Your task to perform on an android device: Clear all items from cart on newegg.com. Add "alienware aurora" to the cart on newegg.com, then select checkout. Image 0: 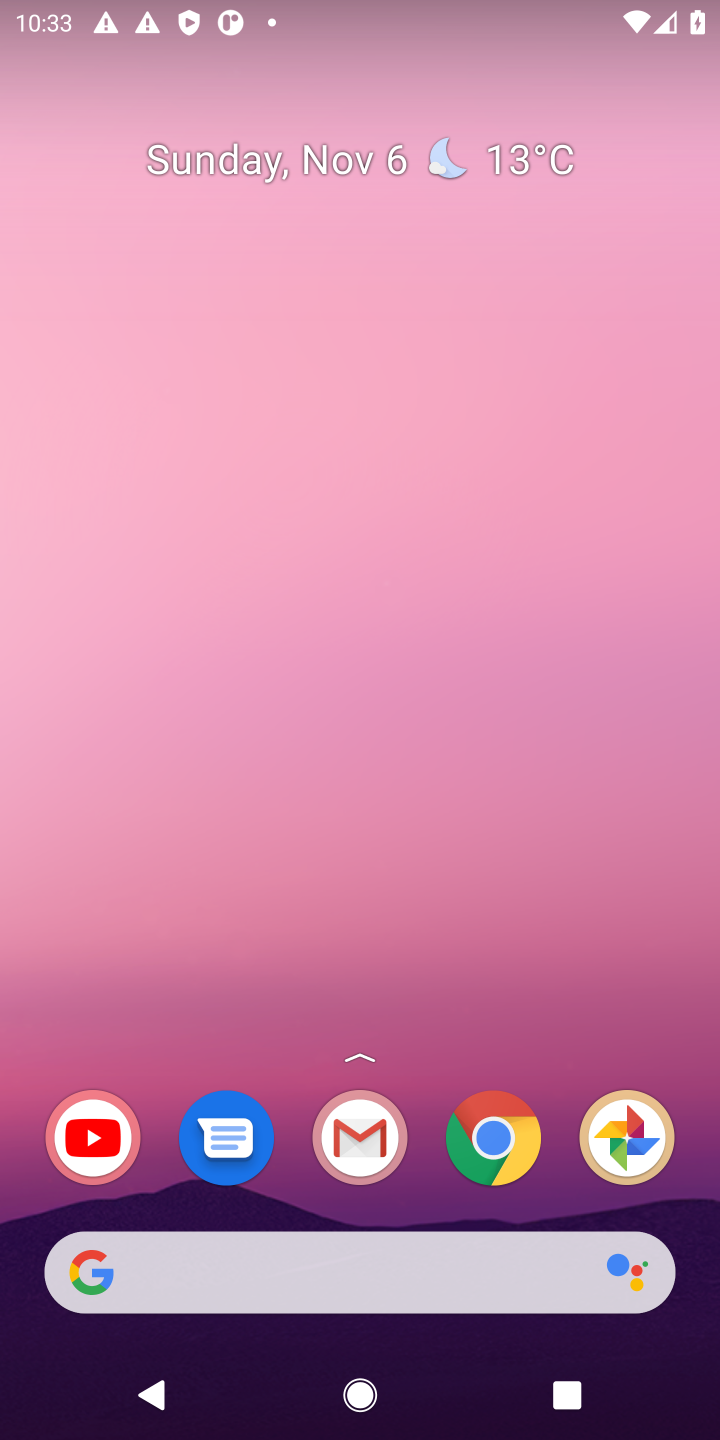
Step 0: click (482, 1135)
Your task to perform on an android device: Clear all items from cart on newegg.com. Add "alienware aurora" to the cart on newegg.com, then select checkout. Image 1: 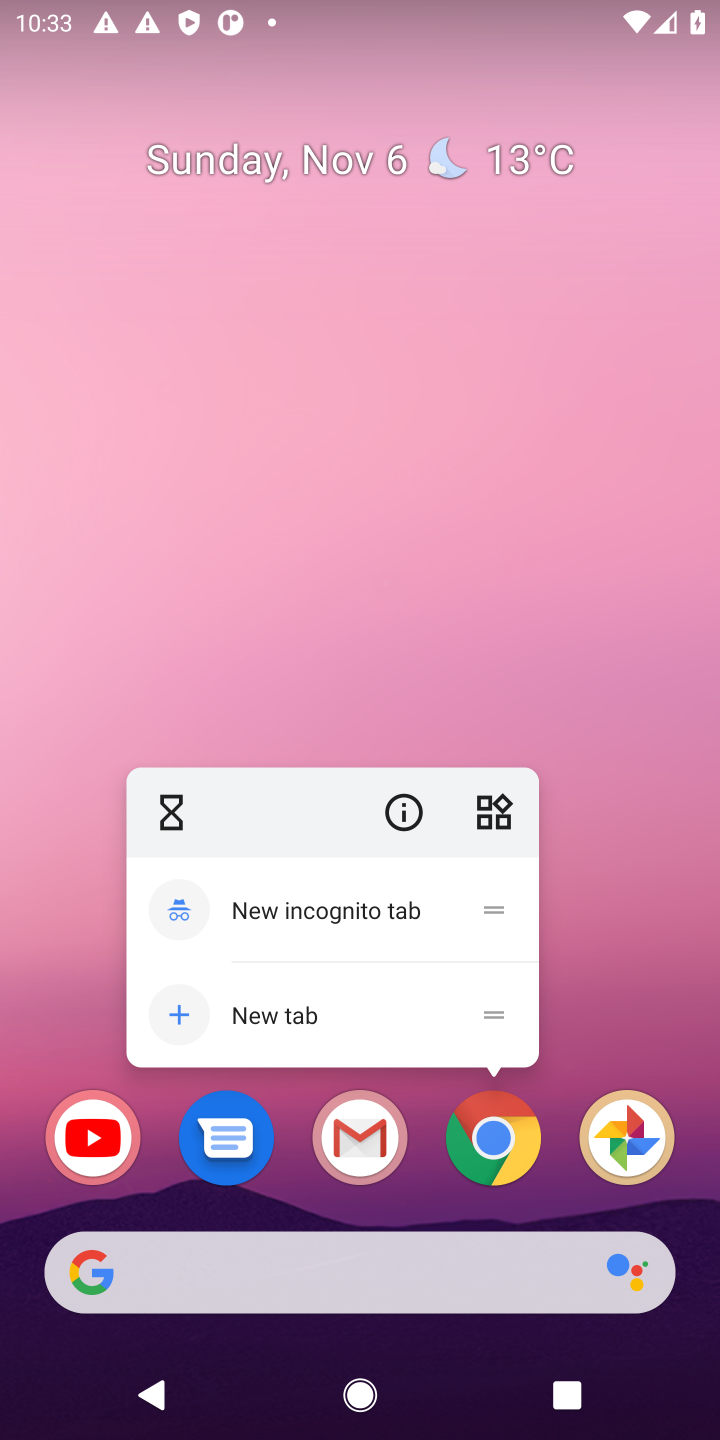
Step 1: click (489, 1143)
Your task to perform on an android device: Clear all items from cart on newegg.com. Add "alienware aurora" to the cart on newegg.com, then select checkout. Image 2: 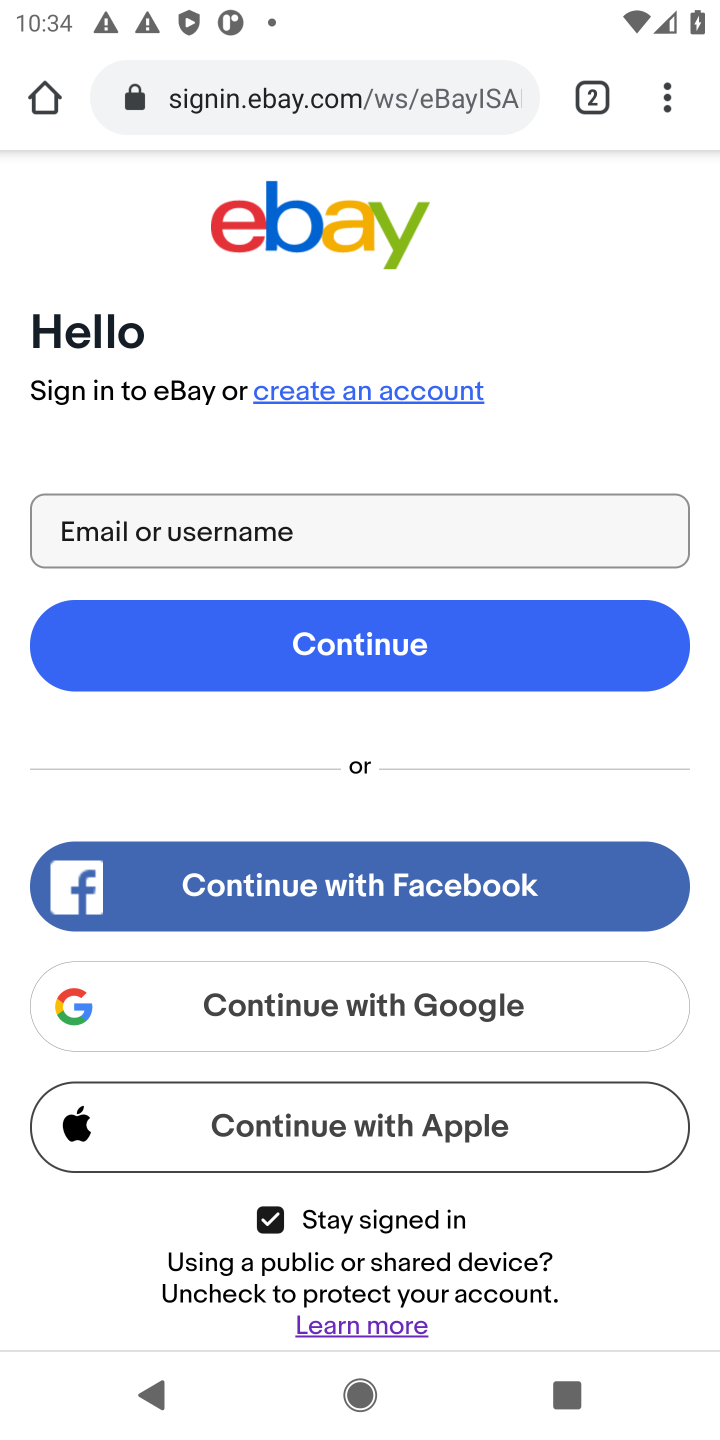
Step 2: click (402, 73)
Your task to perform on an android device: Clear all items from cart on newegg.com. Add "alienware aurora" to the cart on newegg.com, then select checkout. Image 3: 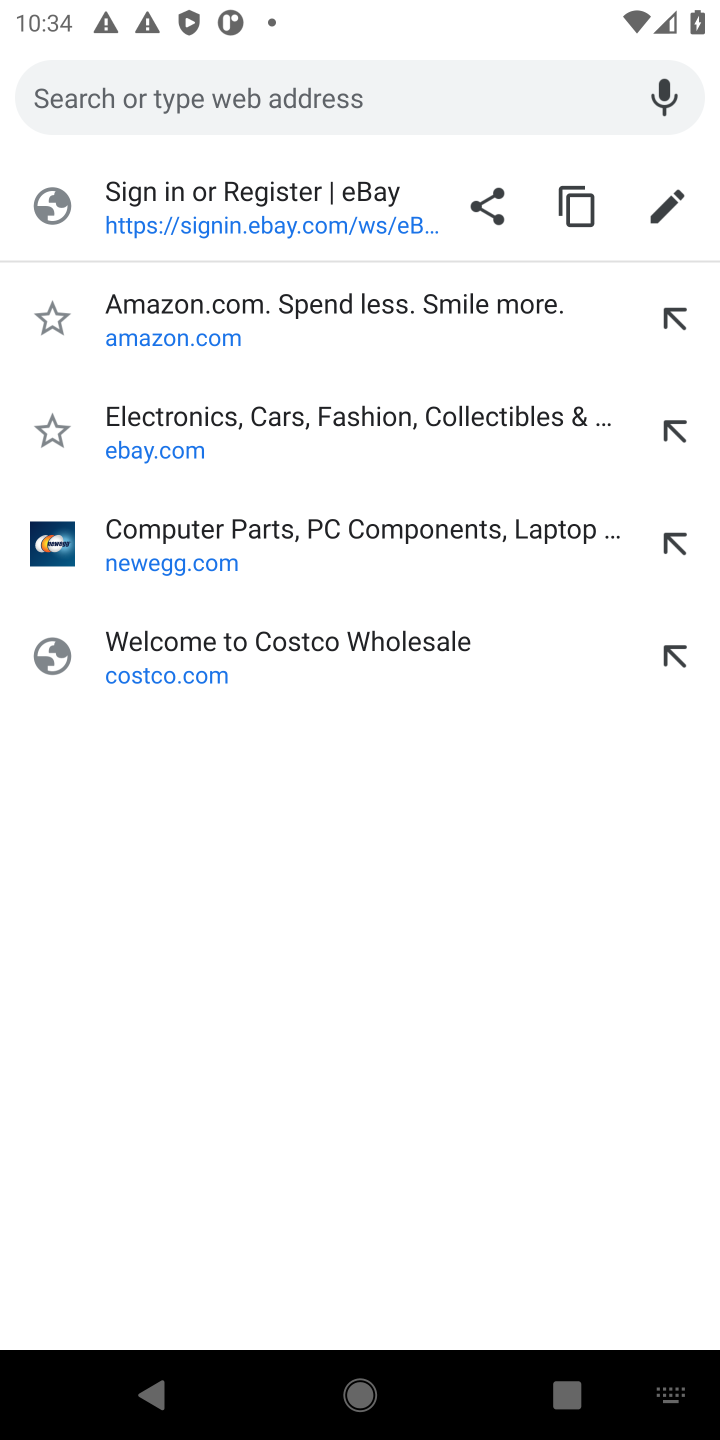
Step 3: type "newegg.com"
Your task to perform on an android device: Clear all items from cart on newegg.com. Add "alienware aurora" to the cart on newegg.com, then select checkout. Image 4: 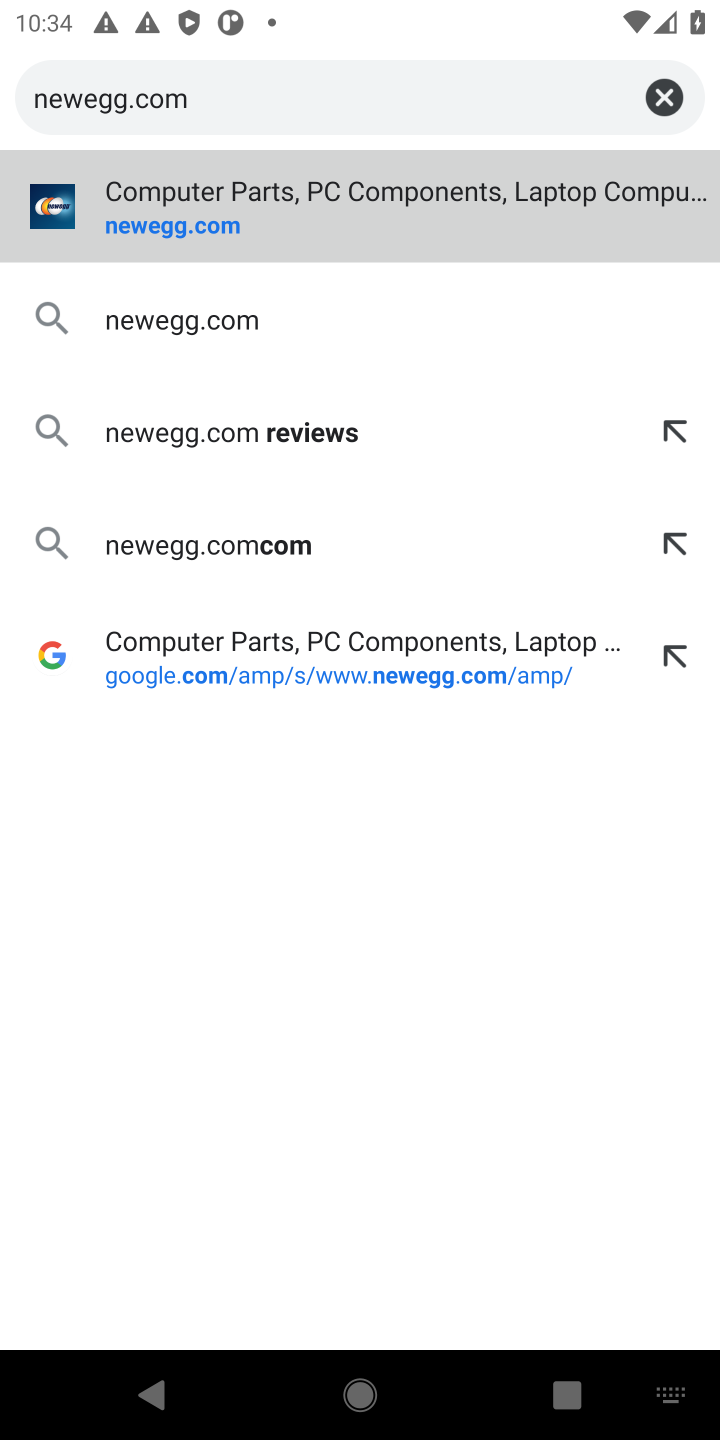
Step 4: click (117, 186)
Your task to perform on an android device: Clear all items from cart on newegg.com. Add "alienware aurora" to the cart on newegg.com, then select checkout. Image 5: 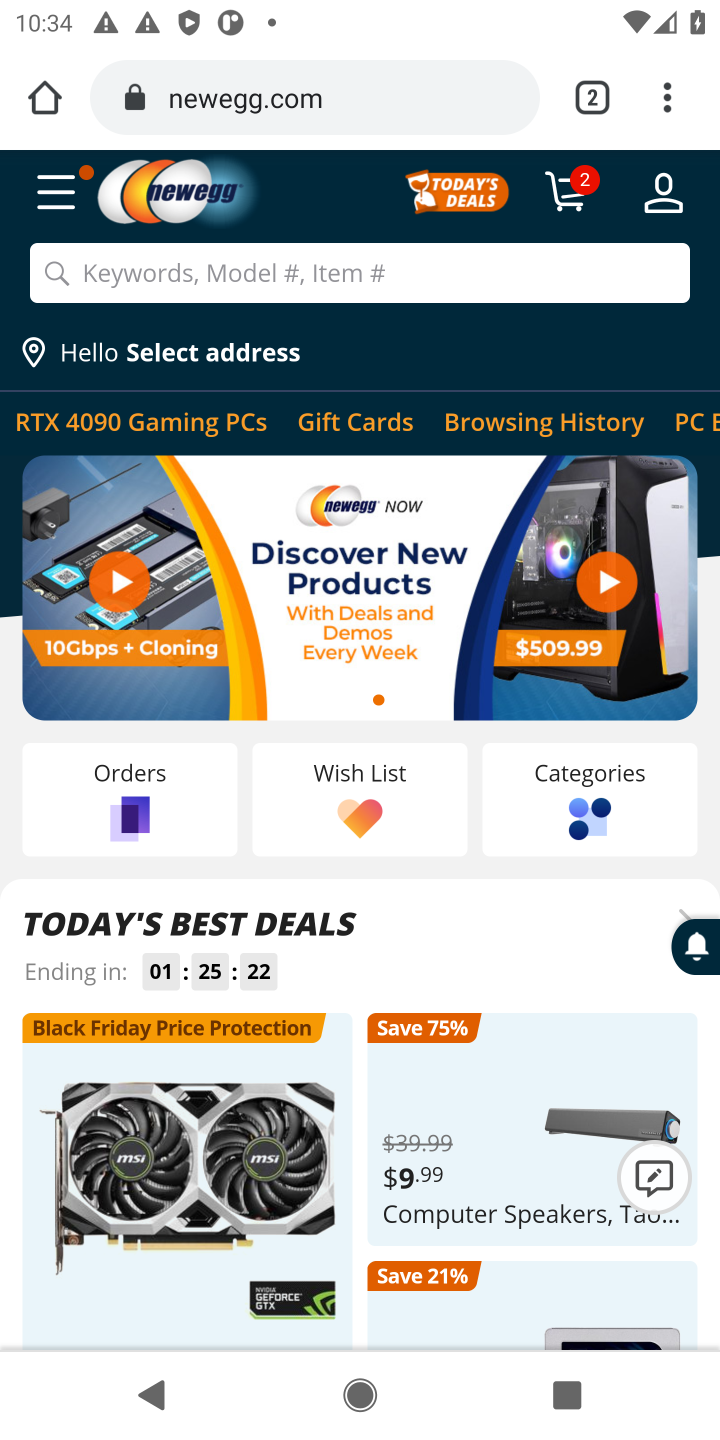
Step 5: click (563, 190)
Your task to perform on an android device: Clear all items from cart on newegg.com. Add "alienware aurora" to the cart on newegg.com, then select checkout. Image 6: 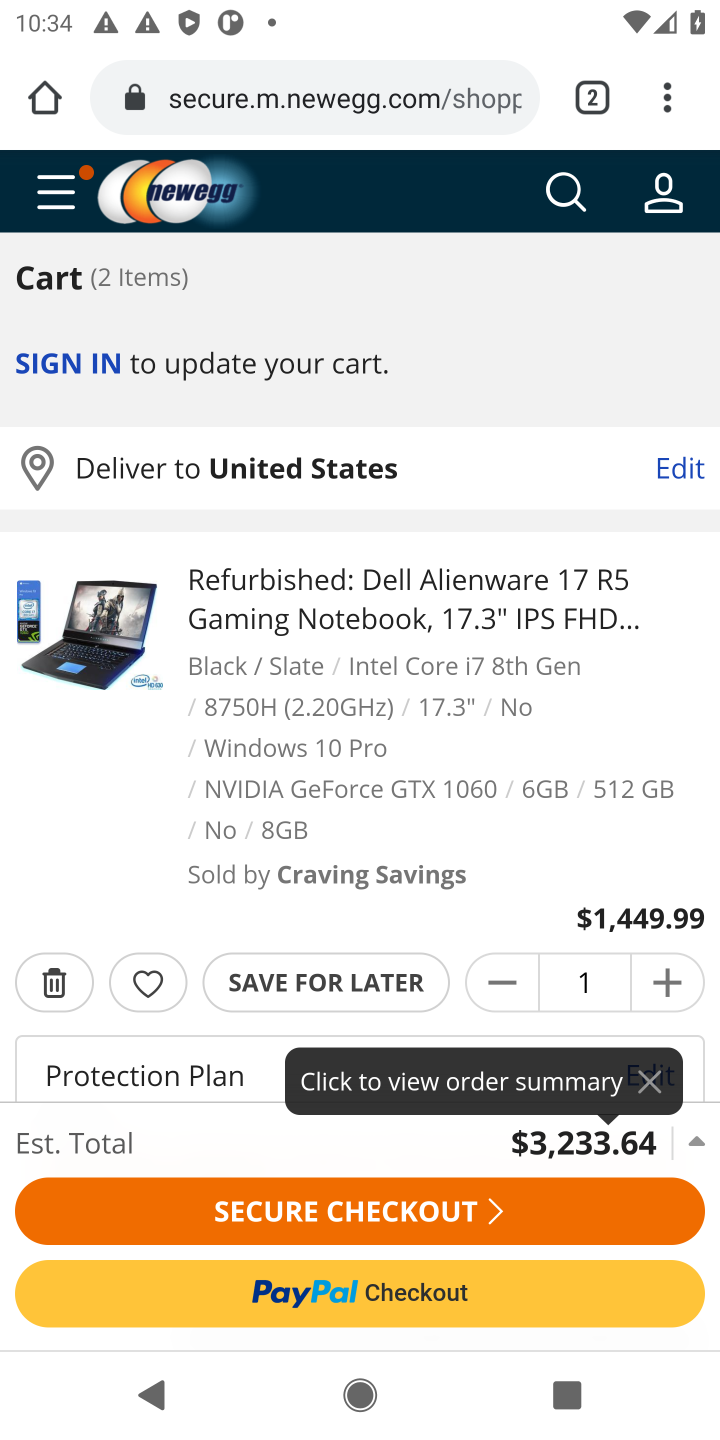
Step 6: click (56, 981)
Your task to perform on an android device: Clear all items from cart on newegg.com. Add "alienware aurora" to the cart on newegg.com, then select checkout. Image 7: 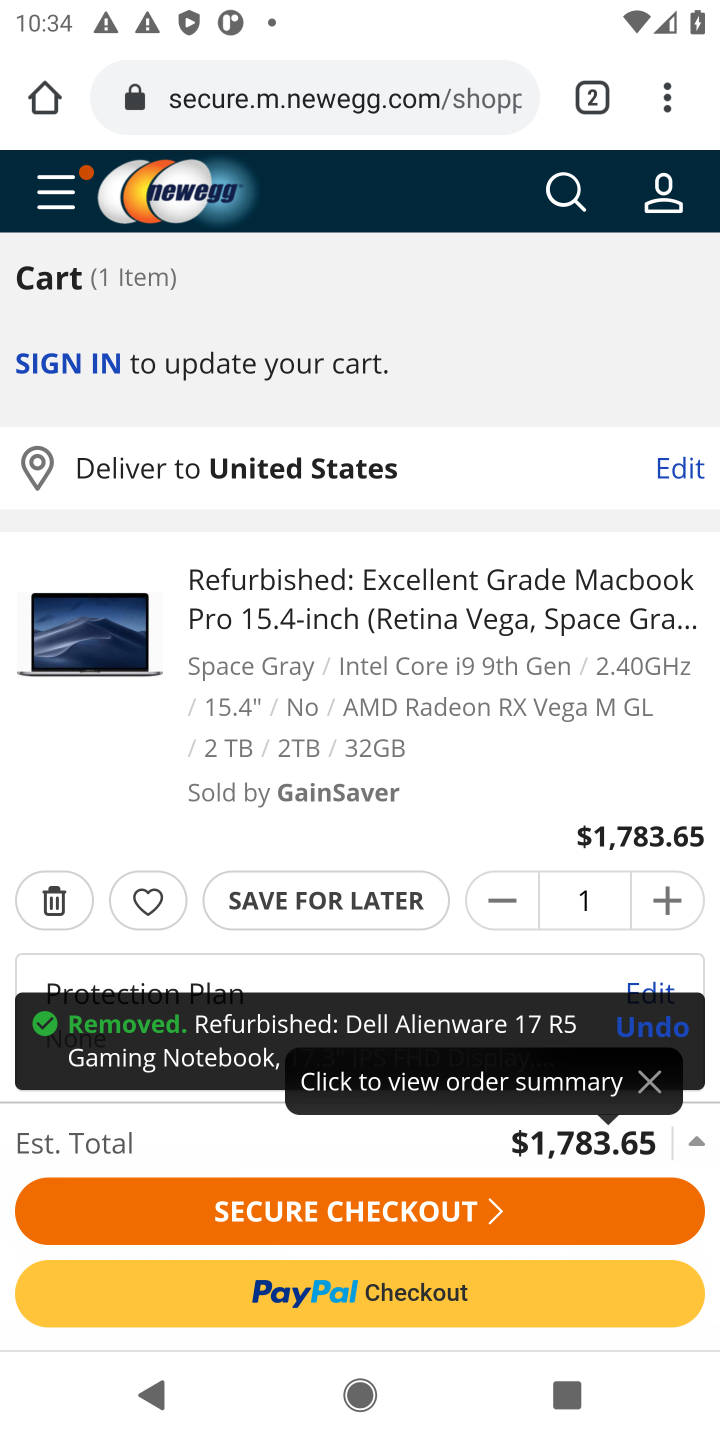
Step 7: click (644, 1079)
Your task to perform on an android device: Clear all items from cart on newegg.com. Add "alienware aurora" to the cart on newegg.com, then select checkout. Image 8: 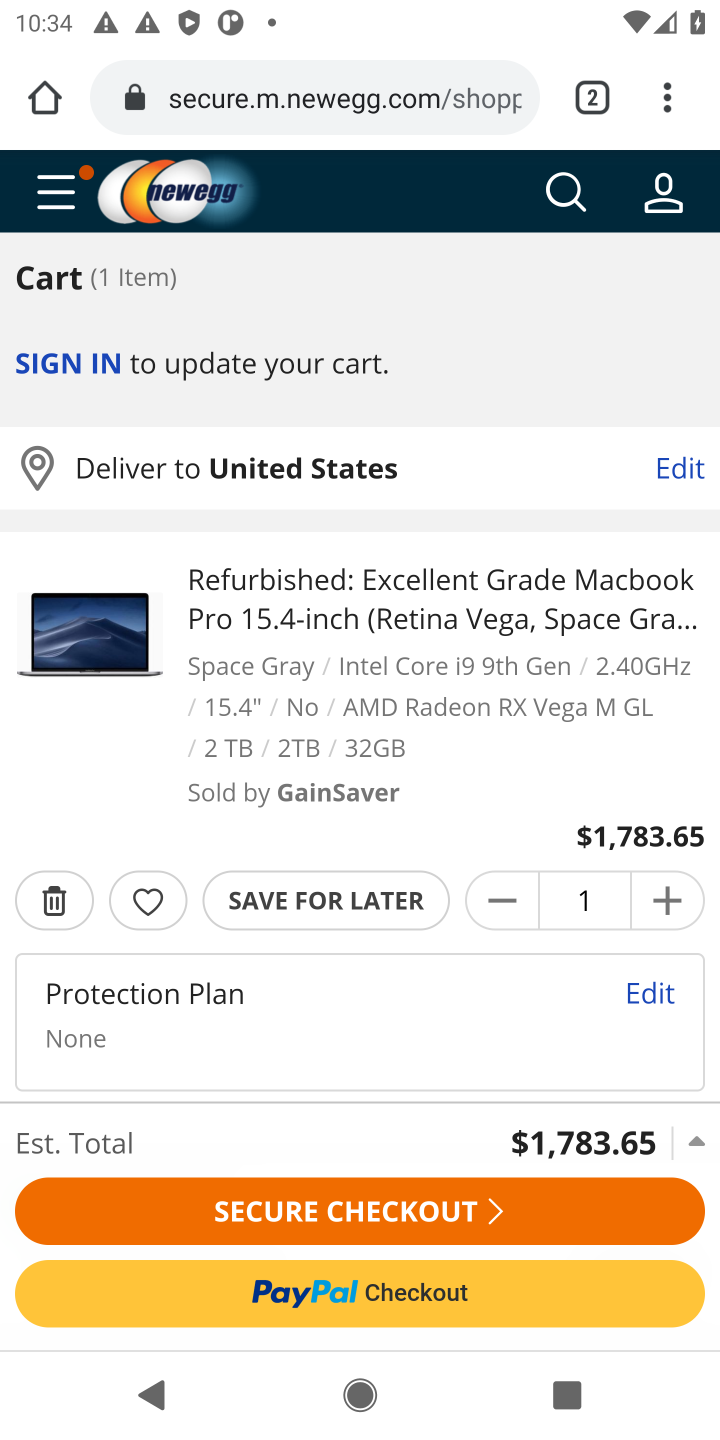
Step 8: click (54, 893)
Your task to perform on an android device: Clear all items from cart on newegg.com. Add "alienware aurora" to the cart on newegg.com, then select checkout. Image 9: 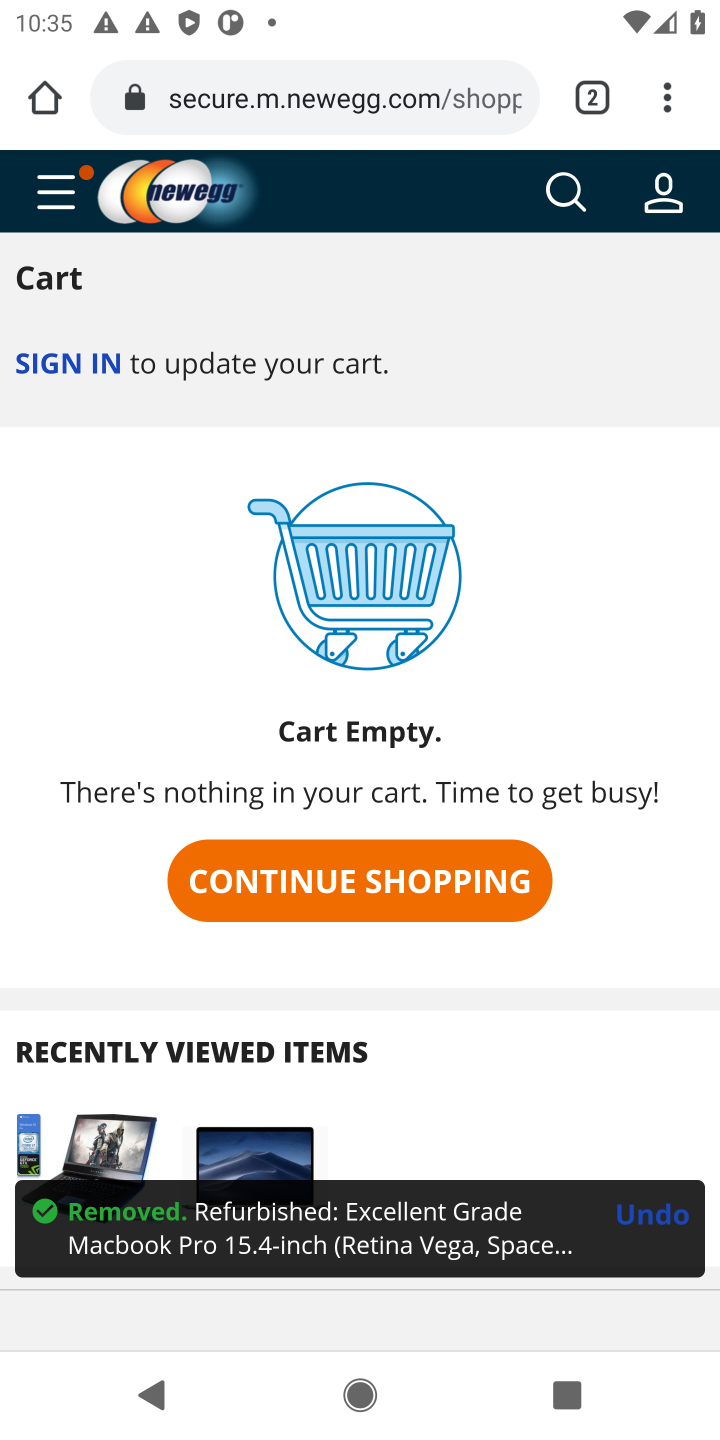
Step 9: click (366, 885)
Your task to perform on an android device: Clear all items from cart on newegg.com. Add "alienware aurora" to the cart on newegg.com, then select checkout. Image 10: 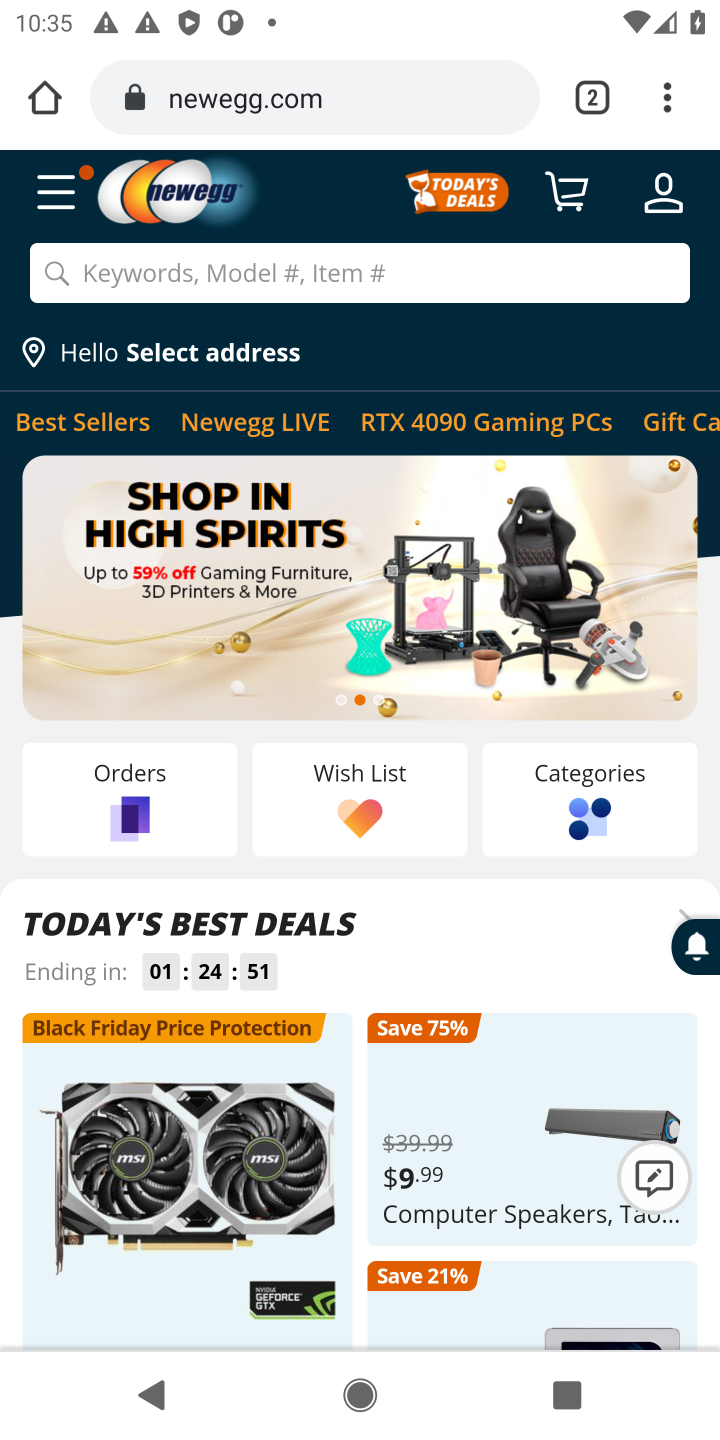
Step 10: click (261, 264)
Your task to perform on an android device: Clear all items from cart on newegg.com. Add "alienware aurora" to the cart on newegg.com, then select checkout. Image 11: 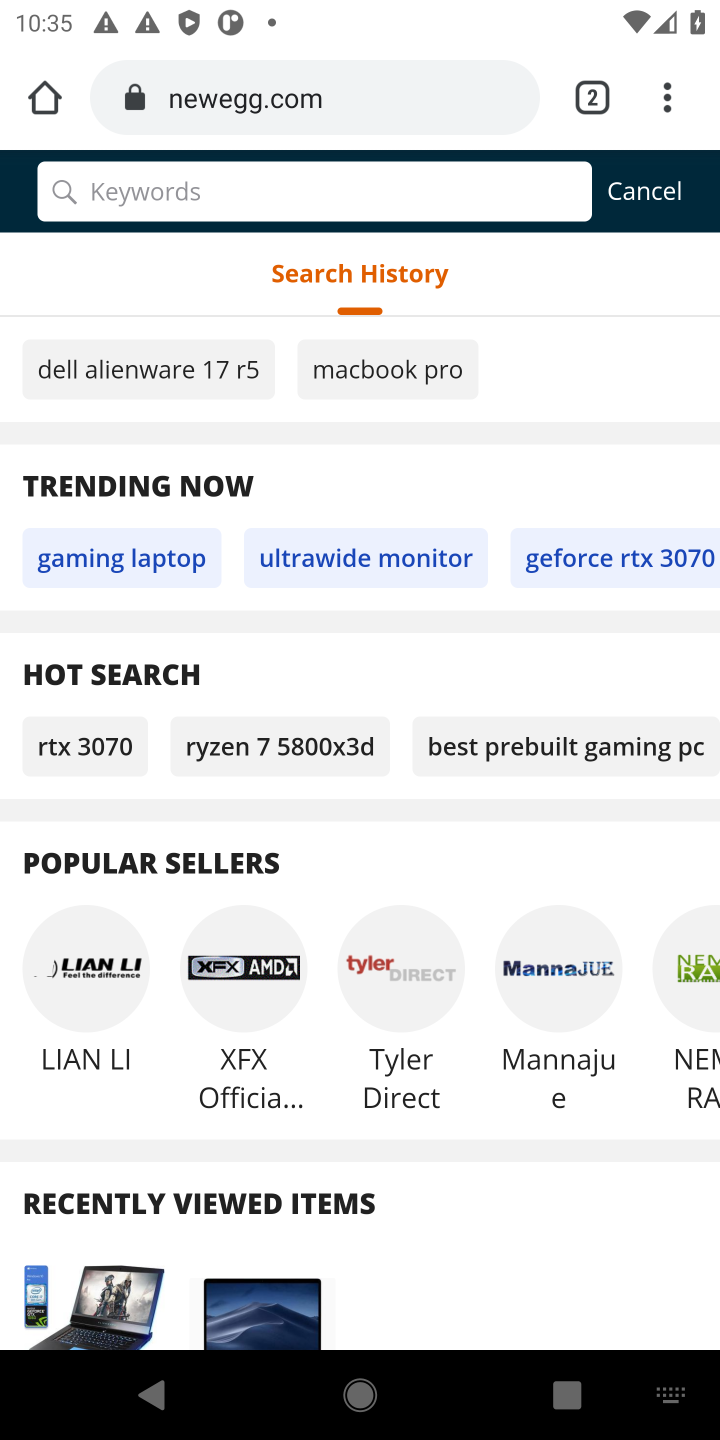
Step 11: type "alienware aurora"
Your task to perform on an android device: Clear all items from cart on newegg.com. Add "alienware aurora" to the cart on newegg.com, then select checkout. Image 12: 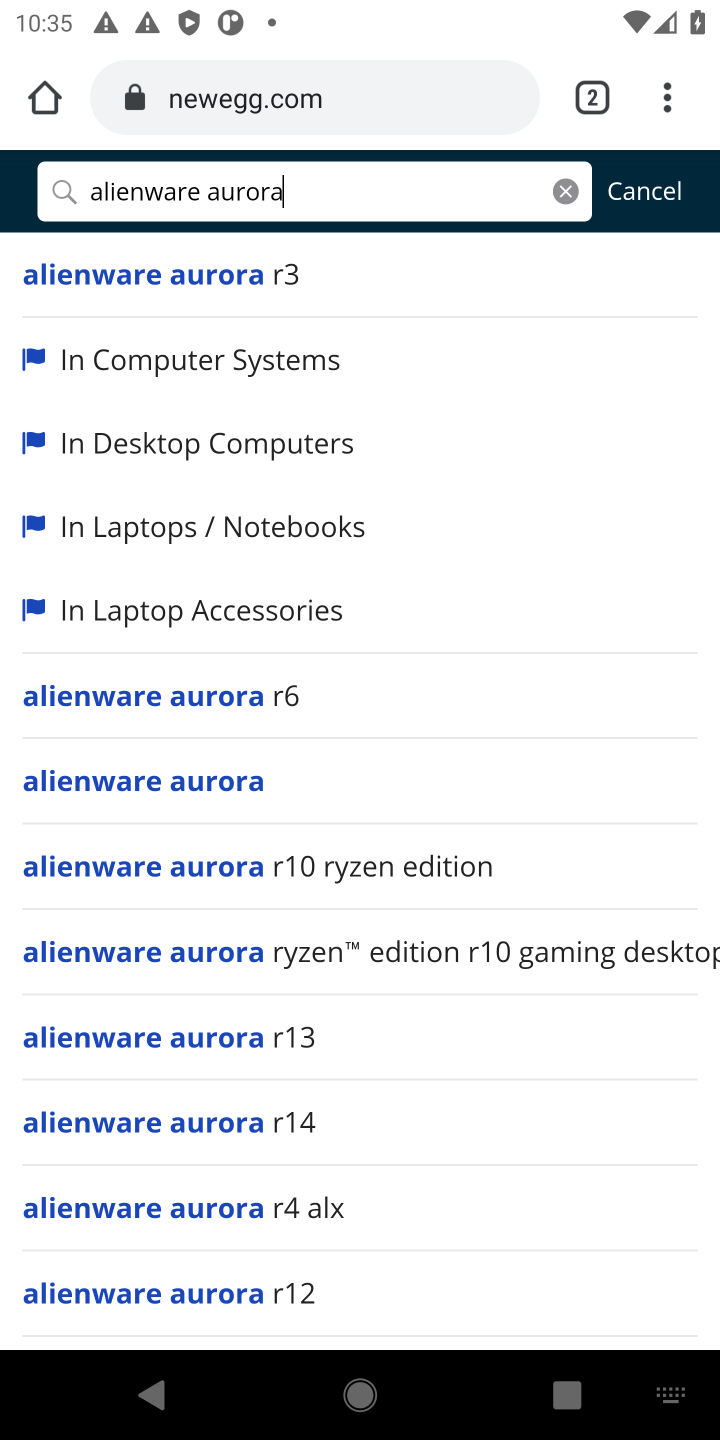
Step 12: click (75, 285)
Your task to perform on an android device: Clear all items from cart on newegg.com. Add "alienware aurora" to the cart on newegg.com, then select checkout. Image 13: 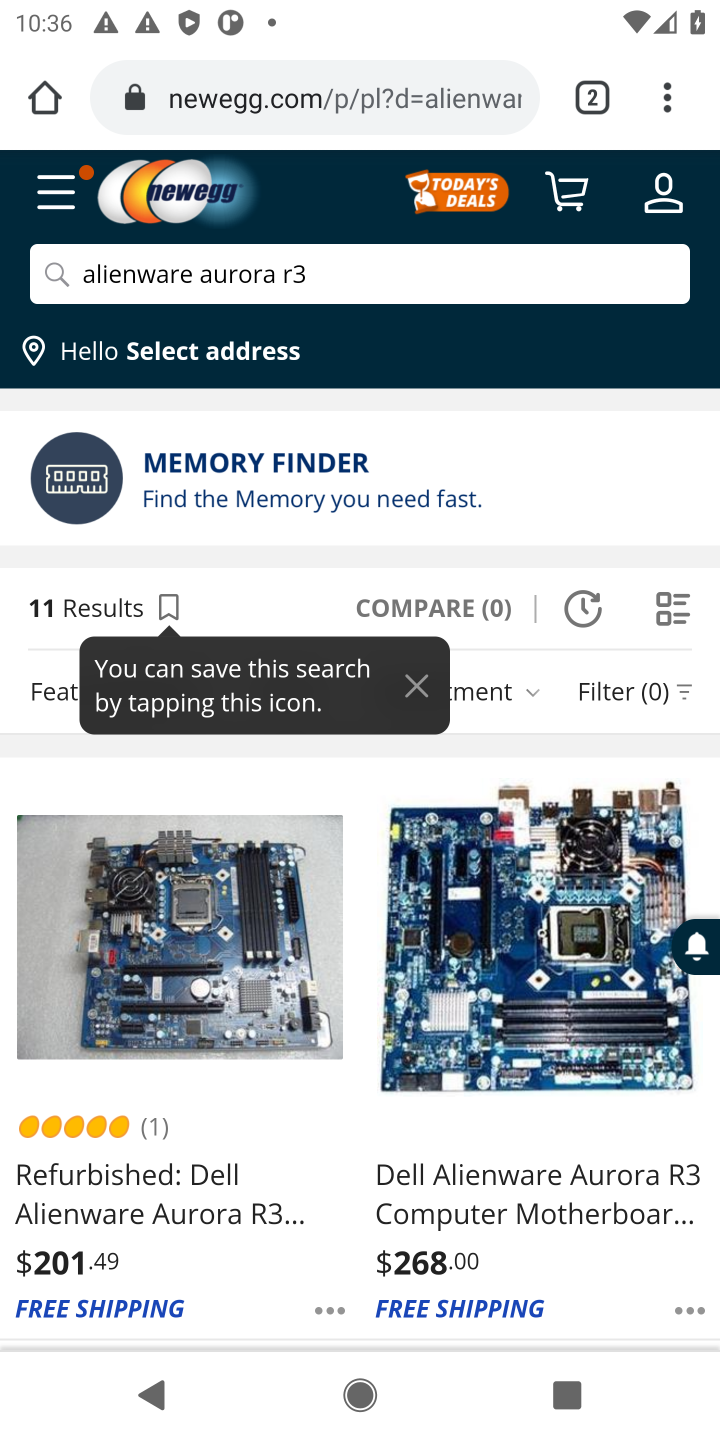
Step 13: click (413, 685)
Your task to perform on an android device: Clear all items from cart on newegg.com. Add "alienware aurora" to the cart on newegg.com, then select checkout. Image 14: 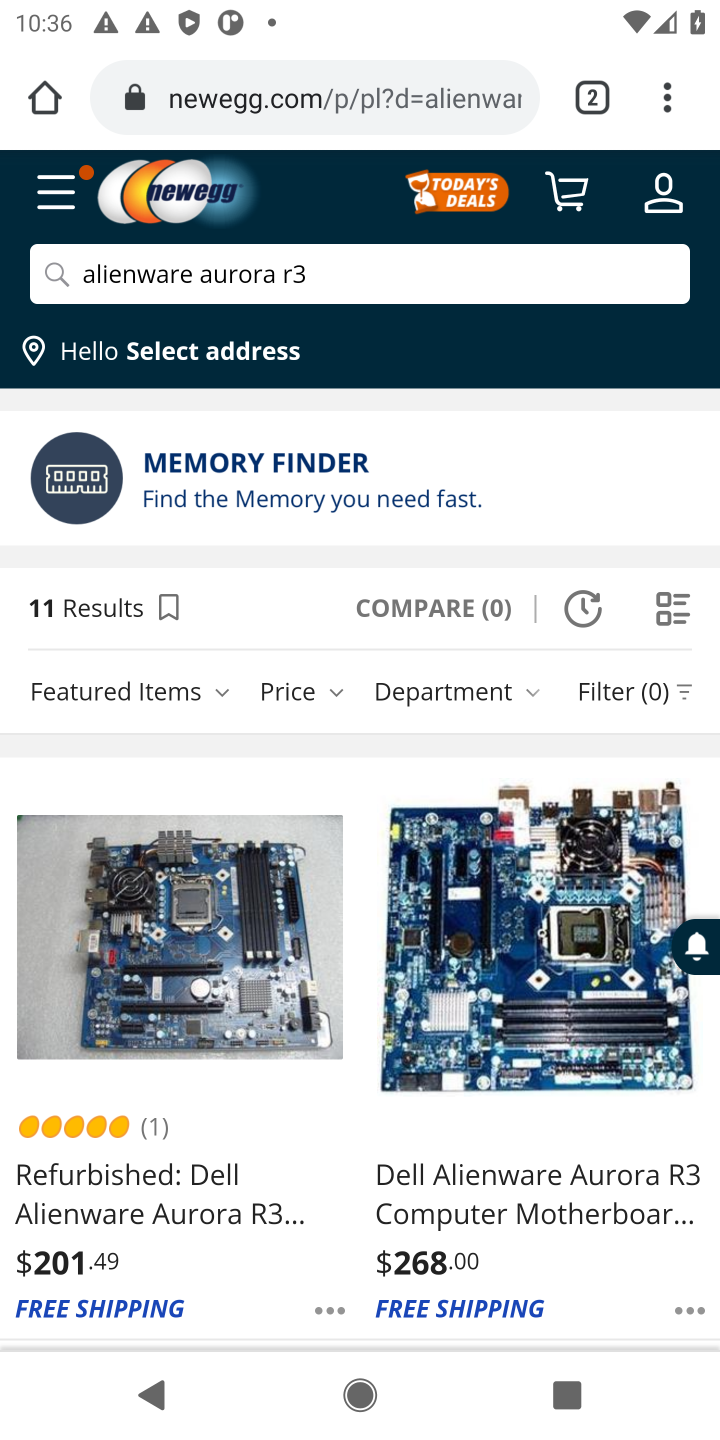
Step 14: drag from (345, 1161) to (346, 447)
Your task to perform on an android device: Clear all items from cart on newegg.com. Add "alienware aurora" to the cart on newegg.com, then select checkout. Image 15: 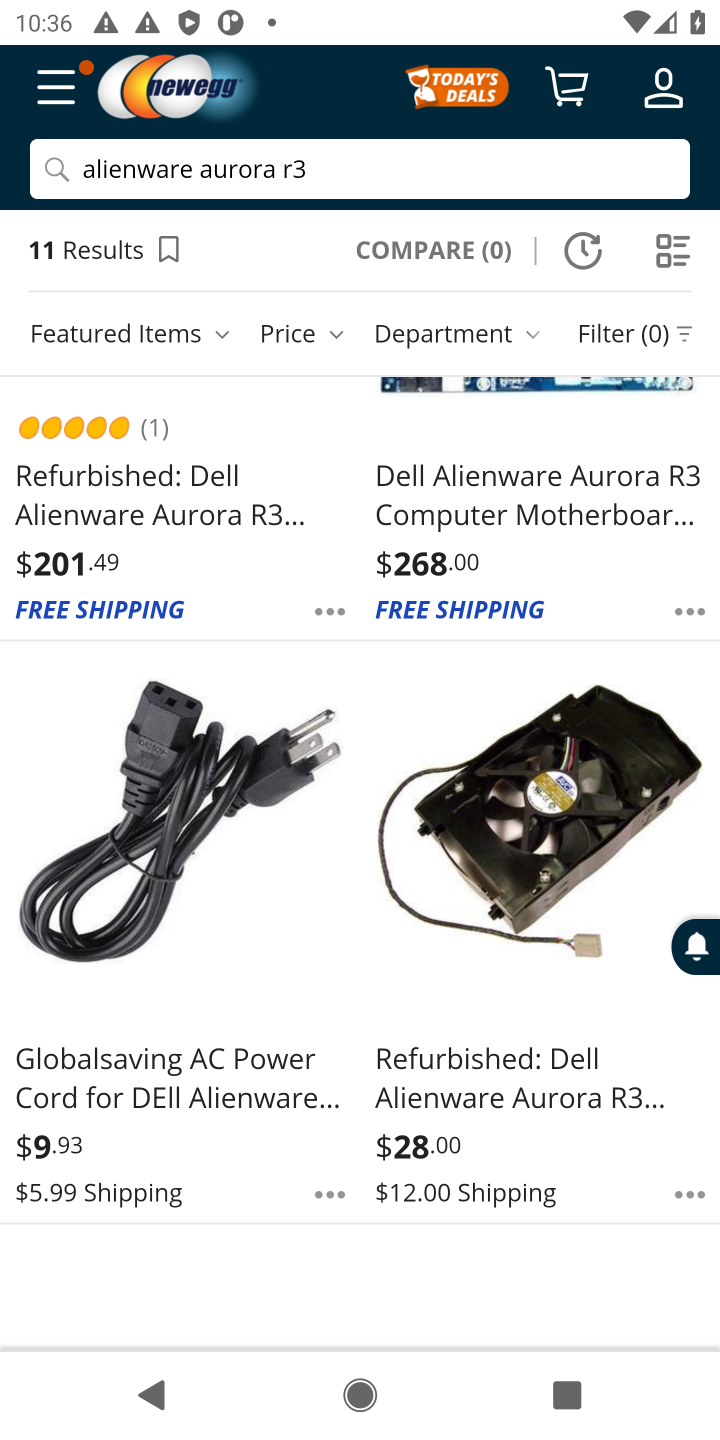
Step 15: click (486, 494)
Your task to perform on an android device: Clear all items from cart on newegg.com. Add "alienware aurora" to the cart on newegg.com, then select checkout. Image 16: 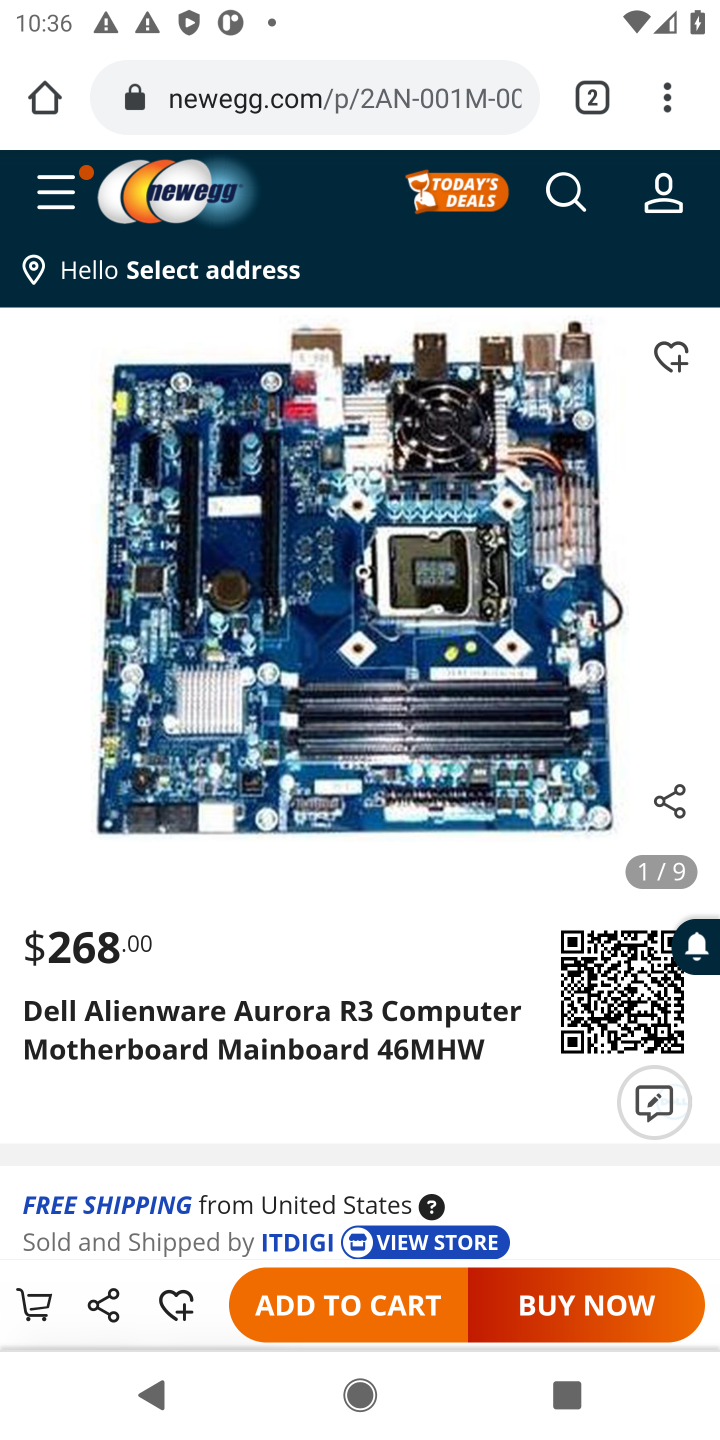
Step 16: click (334, 1299)
Your task to perform on an android device: Clear all items from cart on newegg.com. Add "alienware aurora" to the cart on newegg.com, then select checkout. Image 17: 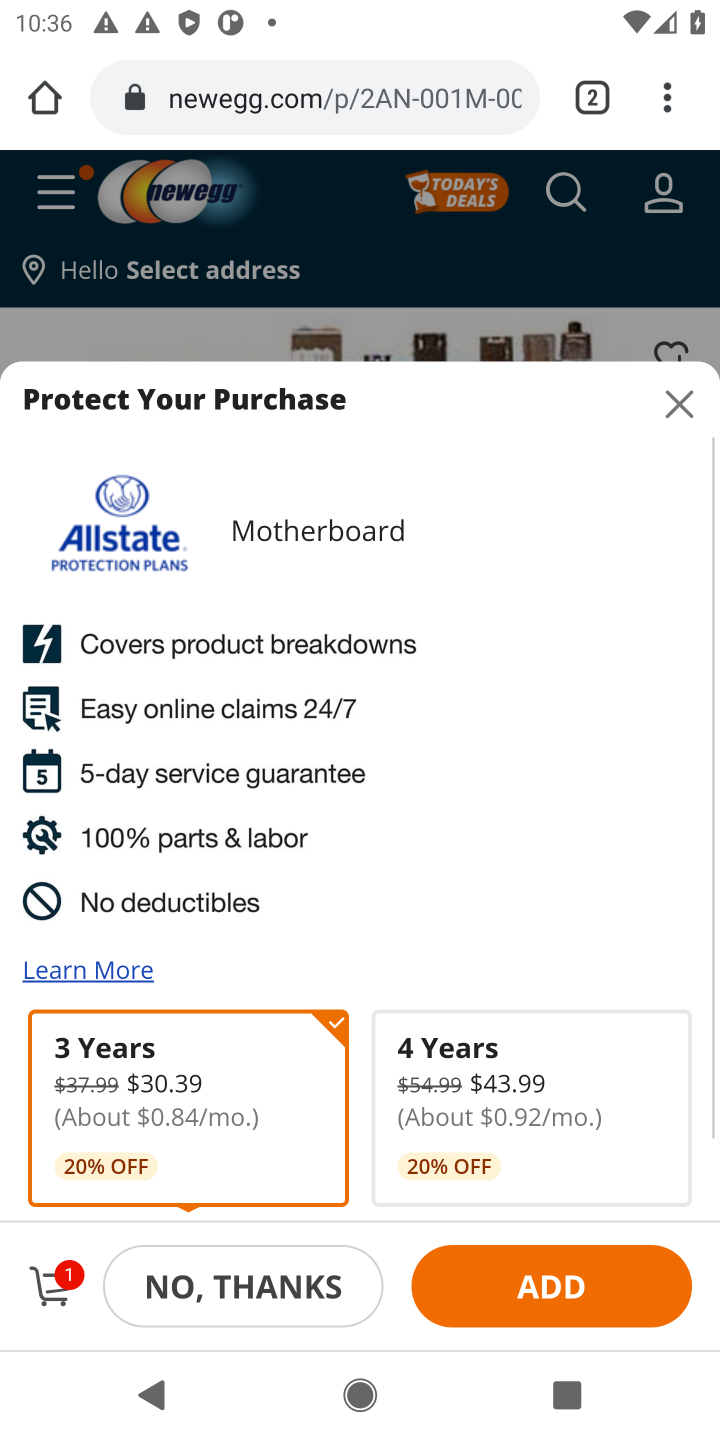
Step 17: click (225, 1280)
Your task to perform on an android device: Clear all items from cart on newegg.com. Add "alienware aurora" to the cart on newegg.com, then select checkout. Image 18: 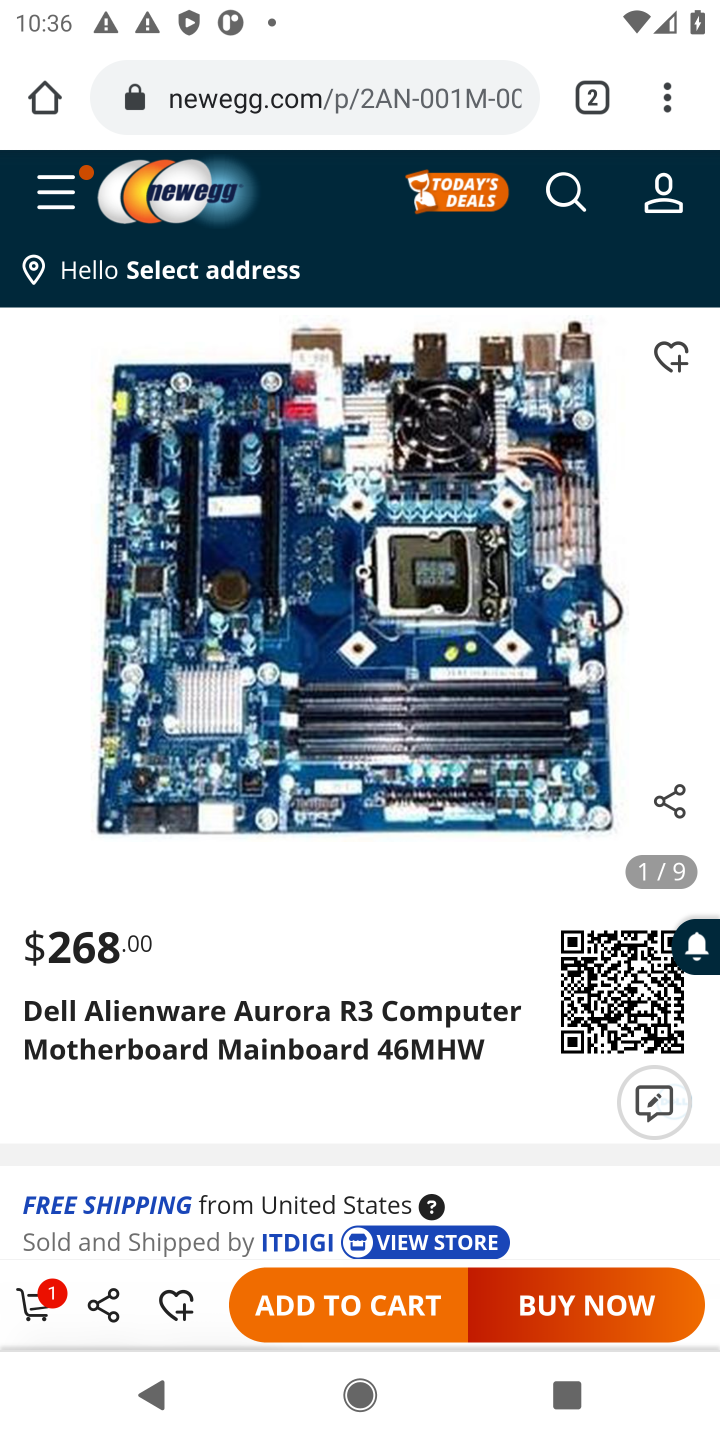
Step 18: click (43, 1297)
Your task to perform on an android device: Clear all items from cart on newegg.com. Add "alienware aurora" to the cart on newegg.com, then select checkout. Image 19: 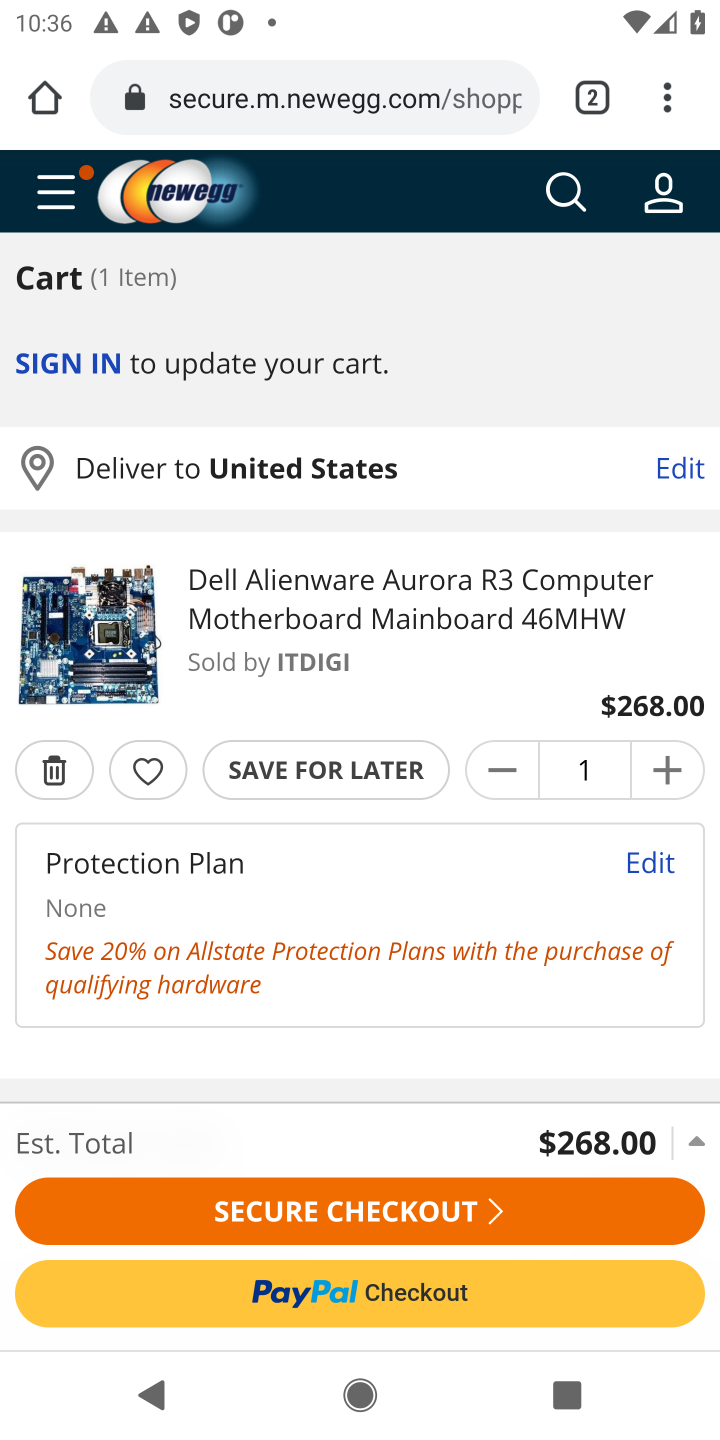
Step 19: click (426, 1208)
Your task to perform on an android device: Clear all items from cart on newegg.com. Add "alienware aurora" to the cart on newegg.com, then select checkout. Image 20: 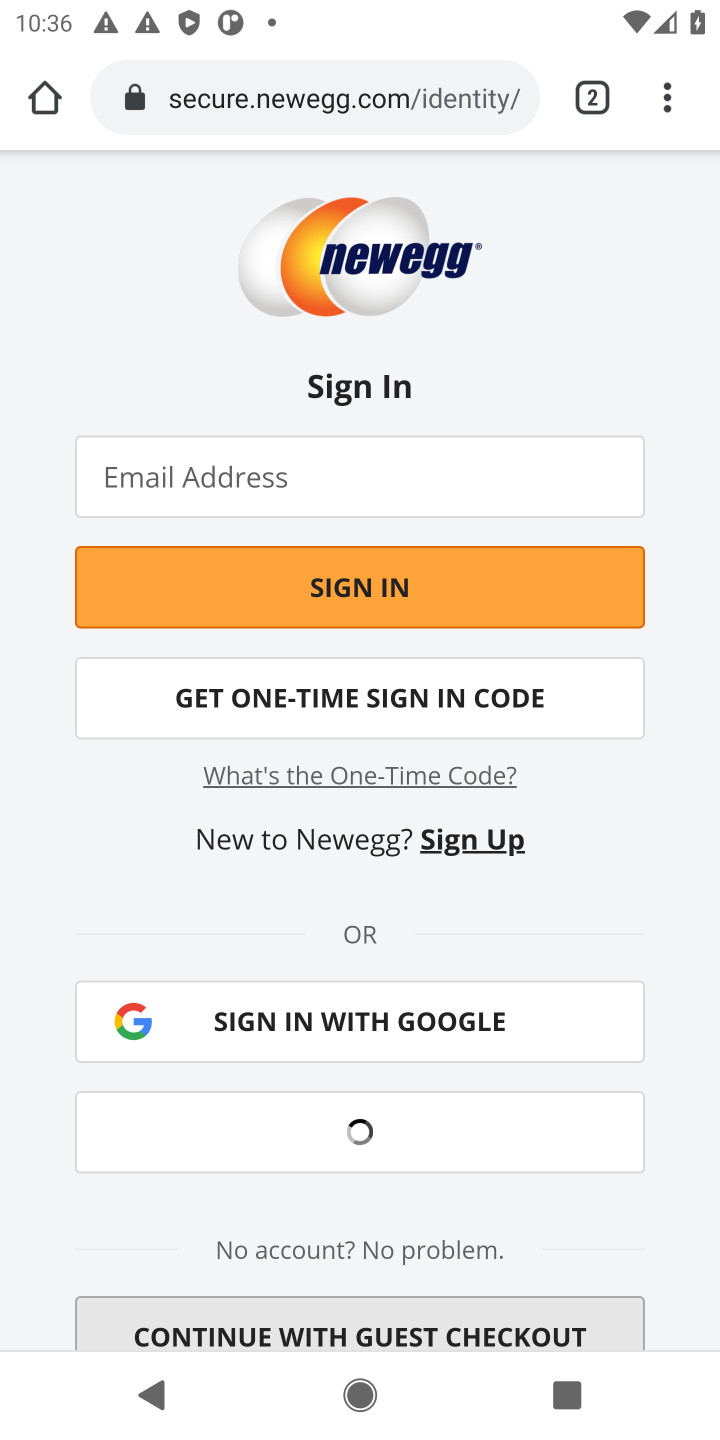
Step 20: task complete